Your task to perform on an android device: Turn off the flashlight Image 0: 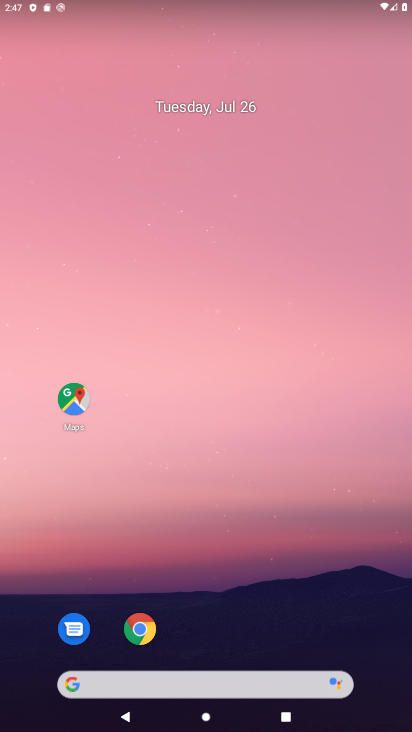
Step 0: drag from (233, 727) to (241, 115)
Your task to perform on an android device: Turn off the flashlight Image 1: 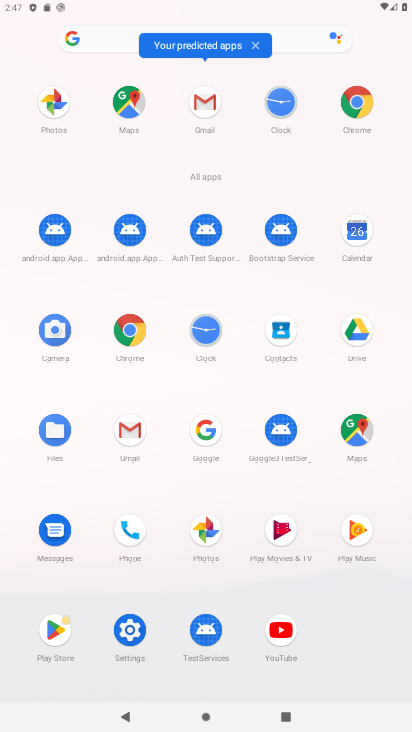
Step 1: click (125, 628)
Your task to perform on an android device: Turn off the flashlight Image 2: 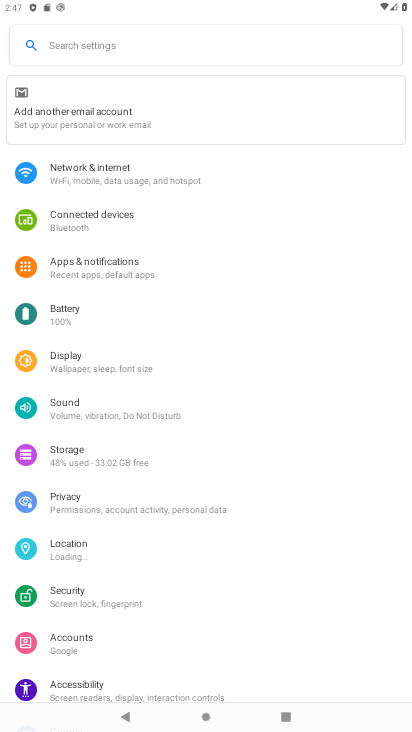
Step 2: task complete